Your task to perform on an android device: change notification settings in the gmail app Image 0: 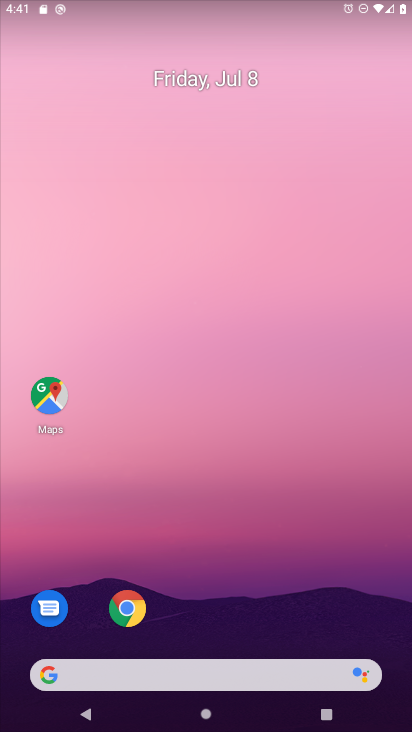
Step 0: drag from (336, 666) to (309, 1)
Your task to perform on an android device: change notification settings in the gmail app Image 1: 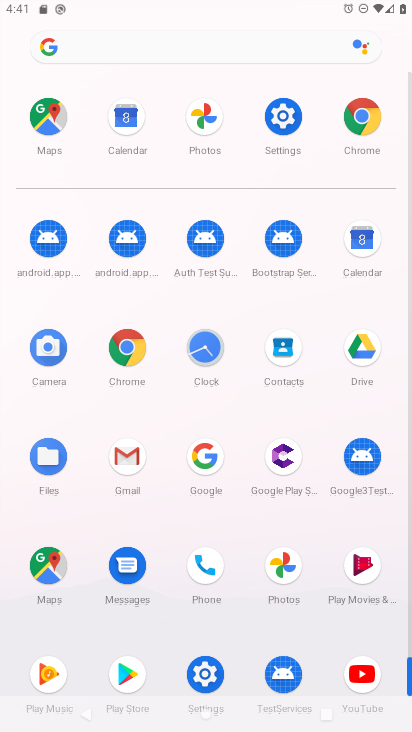
Step 1: click (124, 456)
Your task to perform on an android device: change notification settings in the gmail app Image 2: 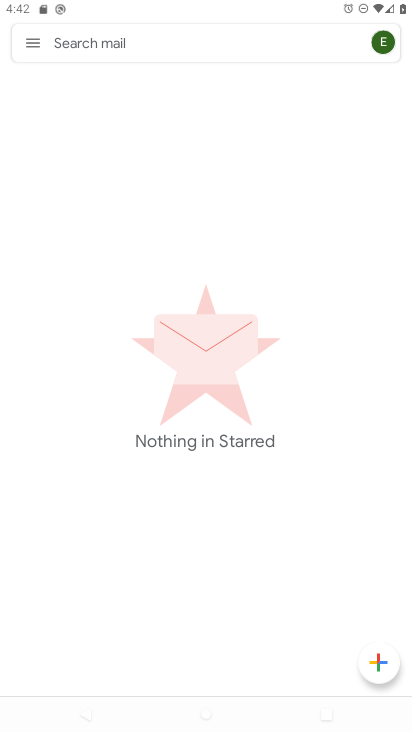
Step 2: click (25, 39)
Your task to perform on an android device: change notification settings in the gmail app Image 3: 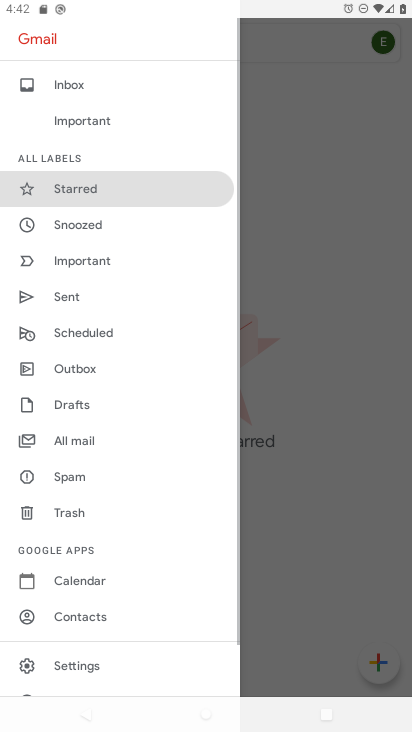
Step 3: click (94, 664)
Your task to perform on an android device: change notification settings in the gmail app Image 4: 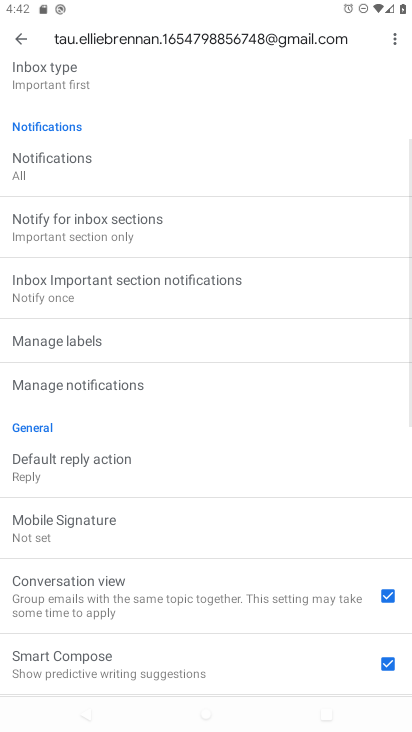
Step 4: click (139, 373)
Your task to perform on an android device: change notification settings in the gmail app Image 5: 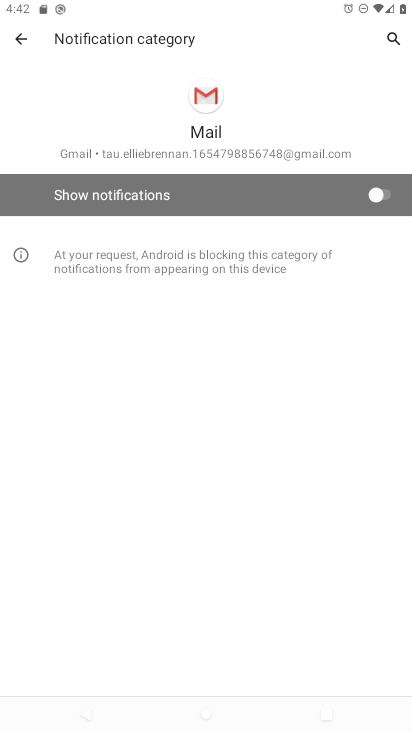
Step 5: click (381, 190)
Your task to perform on an android device: change notification settings in the gmail app Image 6: 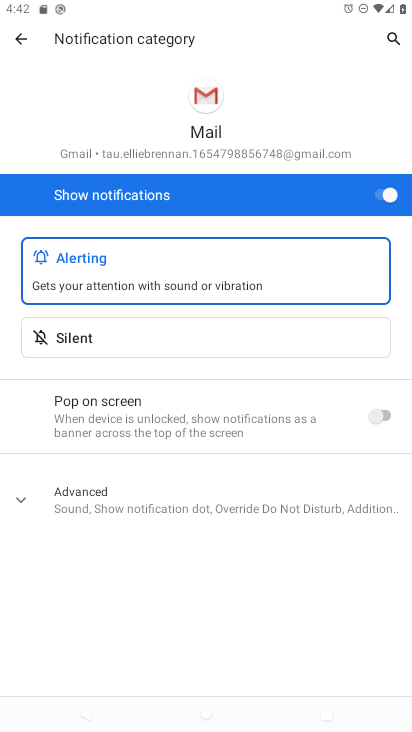
Step 6: task complete